Your task to perform on an android device: set the stopwatch Image 0: 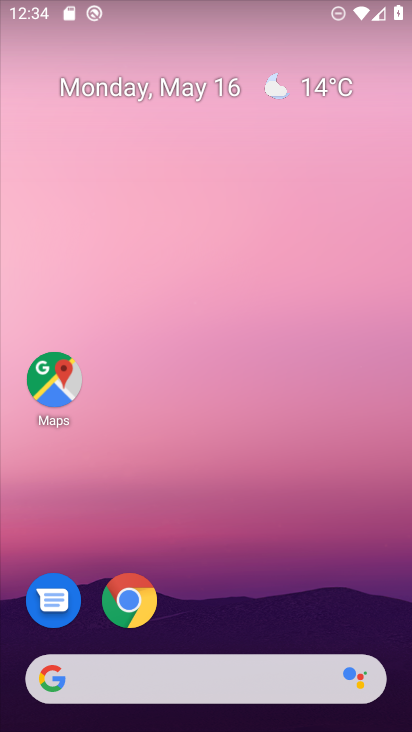
Step 0: press home button
Your task to perform on an android device: set the stopwatch Image 1: 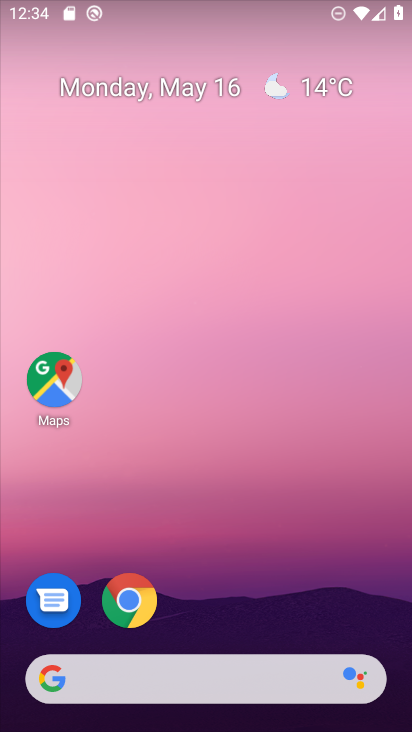
Step 1: drag from (216, 634) to (255, 18)
Your task to perform on an android device: set the stopwatch Image 2: 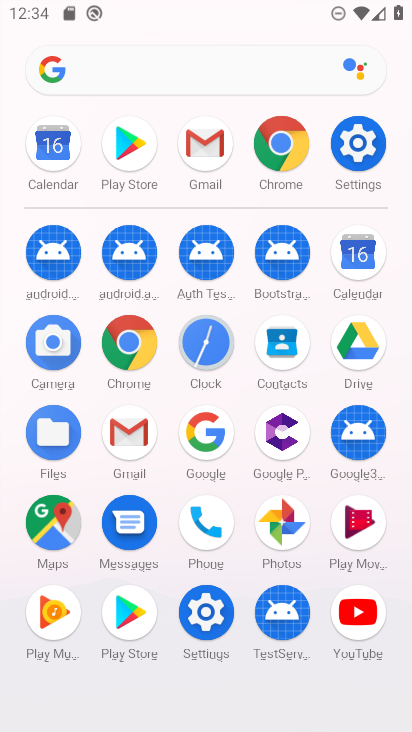
Step 2: click (205, 333)
Your task to perform on an android device: set the stopwatch Image 3: 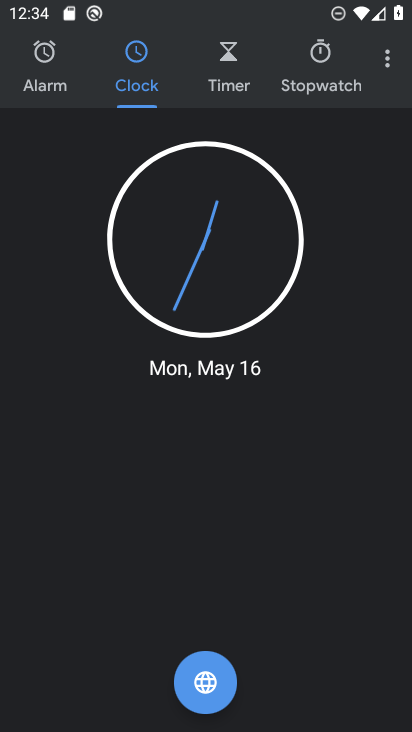
Step 3: click (323, 46)
Your task to perform on an android device: set the stopwatch Image 4: 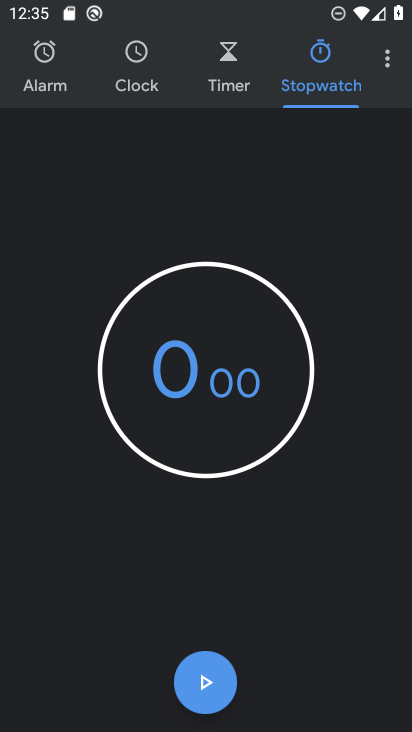
Step 4: click (201, 675)
Your task to perform on an android device: set the stopwatch Image 5: 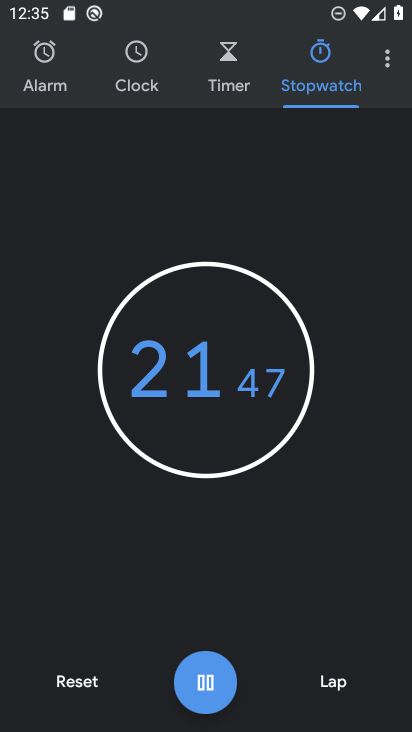
Step 5: click (76, 684)
Your task to perform on an android device: set the stopwatch Image 6: 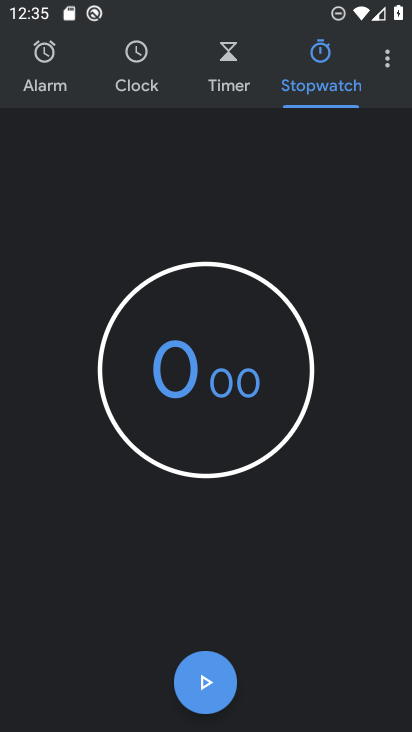
Step 6: task complete